Your task to perform on an android device: Go to internet settings Image 0: 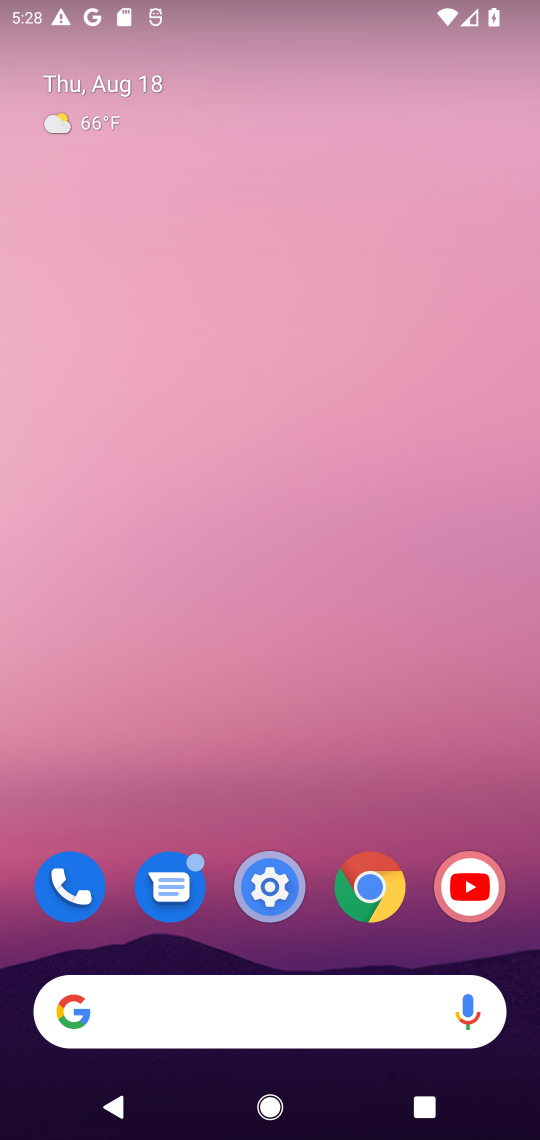
Step 0: drag from (283, 745) to (336, 116)
Your task to perform on an android device: Go to internet settings Image 1: 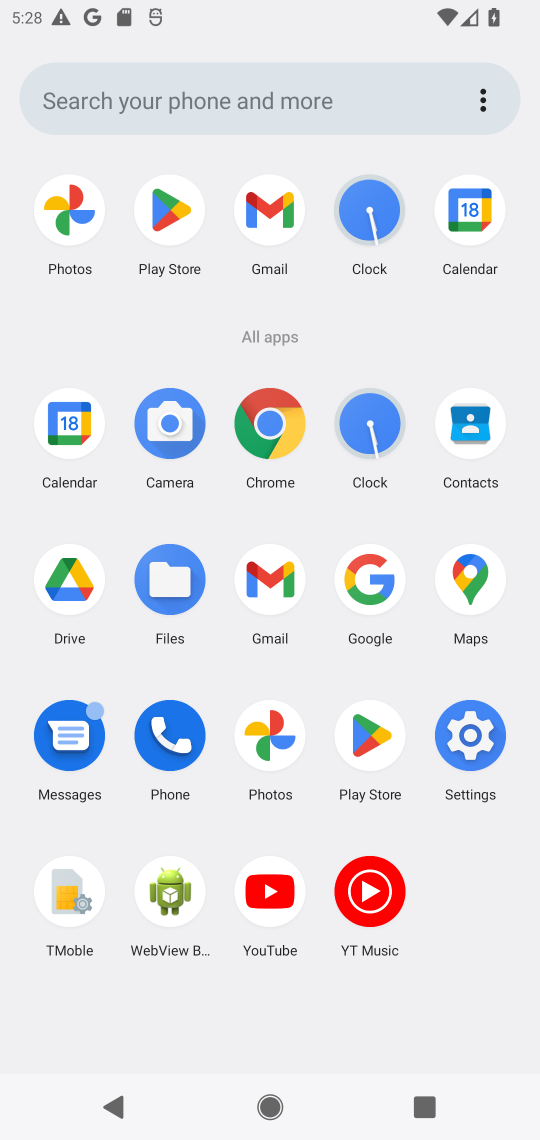
Step 1: click (472, 739)
Your task to perform on an android device: Go to internet settings Image 2: 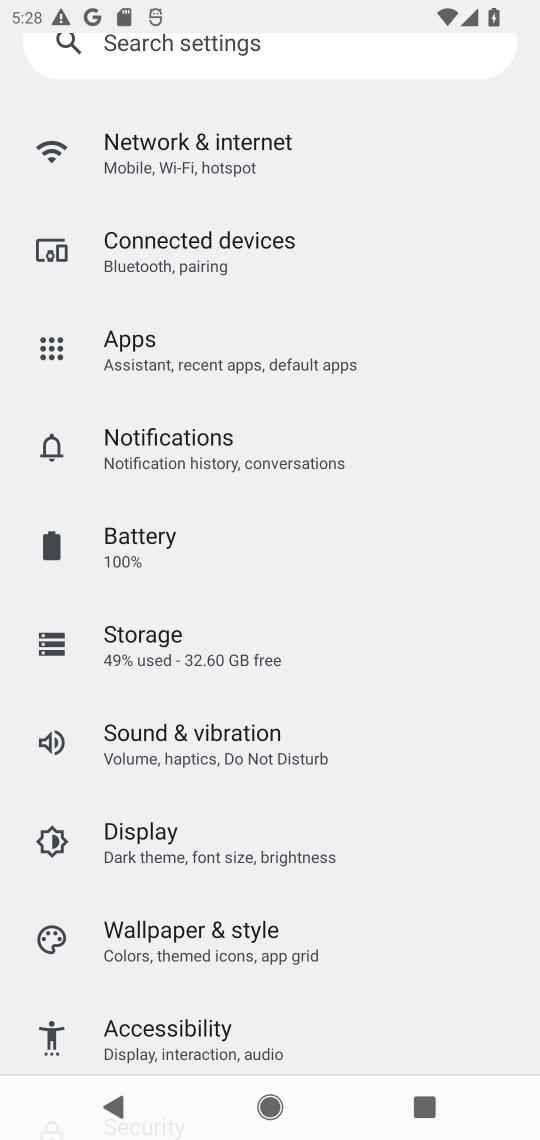
Step 2: task complete